Your task to perform on an android device: Go to display settings Image 0: 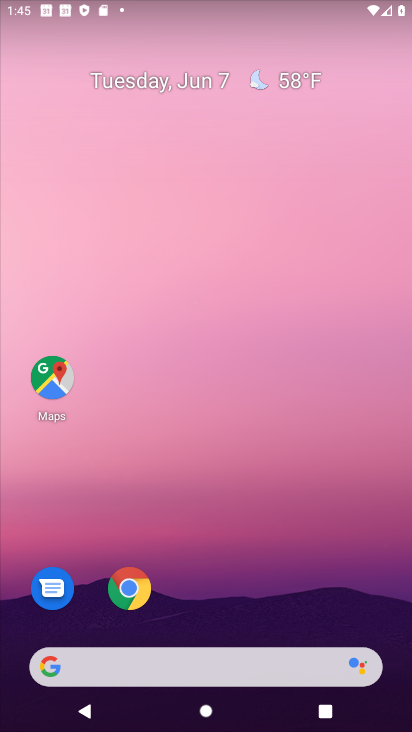
Step 0: drag from (214, 609) to (138, 267)
Your task to perform on an android device: Go to display settings Image 1: 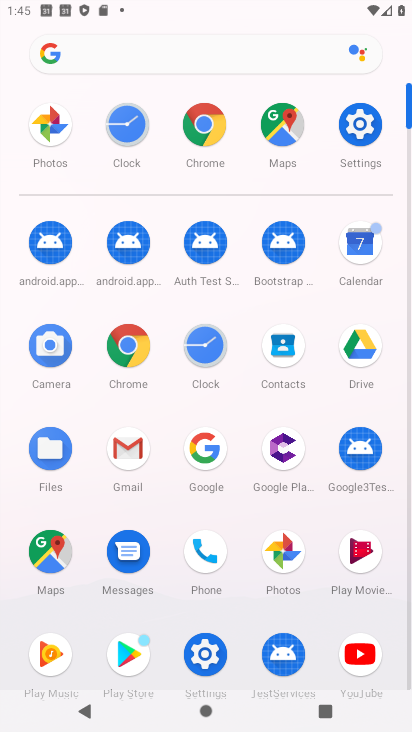
Step 1: click (359, 160)
Your task to perform on an android device: Go to display settings Image 2: 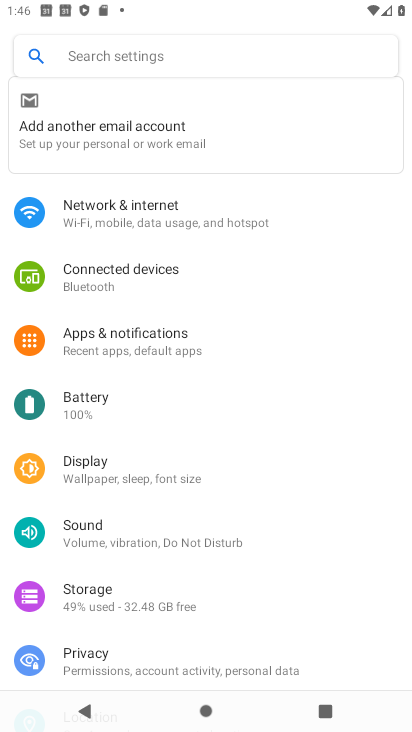
Step 2: drag from (196, 549) to (196, 452)
Your task to perform on an android device: Go to display settings Image 3: 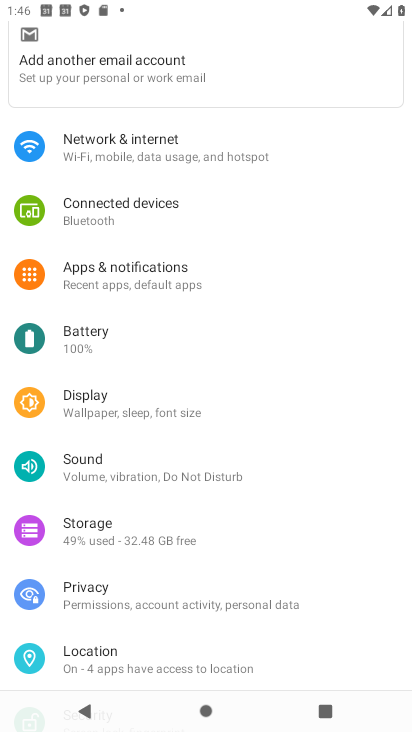
Step 3: click (184, 423)
Your task to perform on an android device: Go to display settings Image 4: 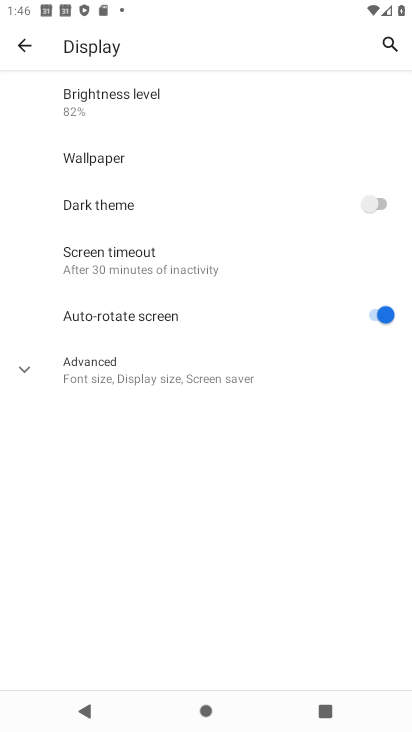
Step 4: task complete